Your task to perform on an android device: What's the weather? Image 0: 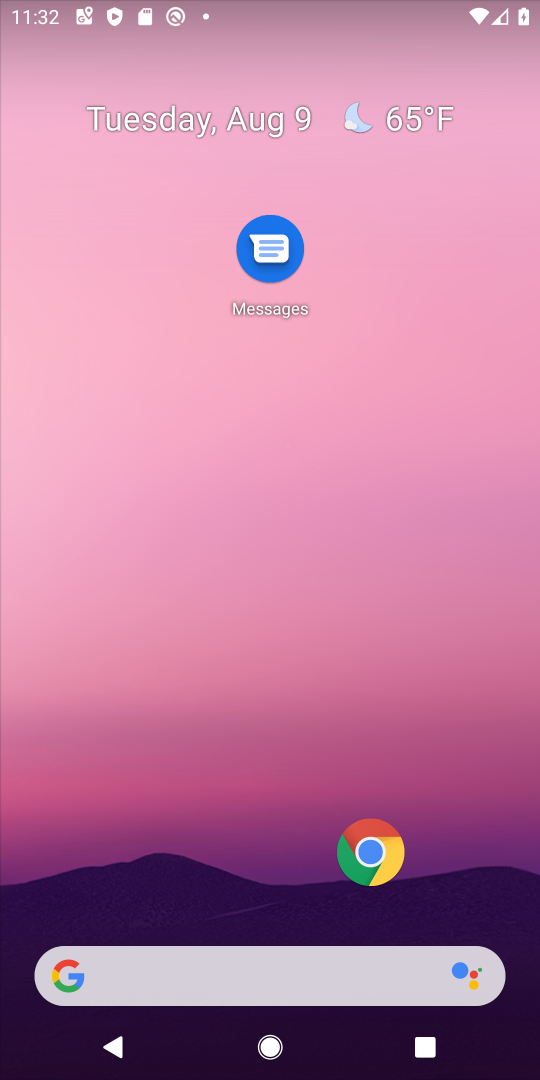
Step 0: click (164, 973)
Your task to perform on an android device: What's the weather? Image 1: 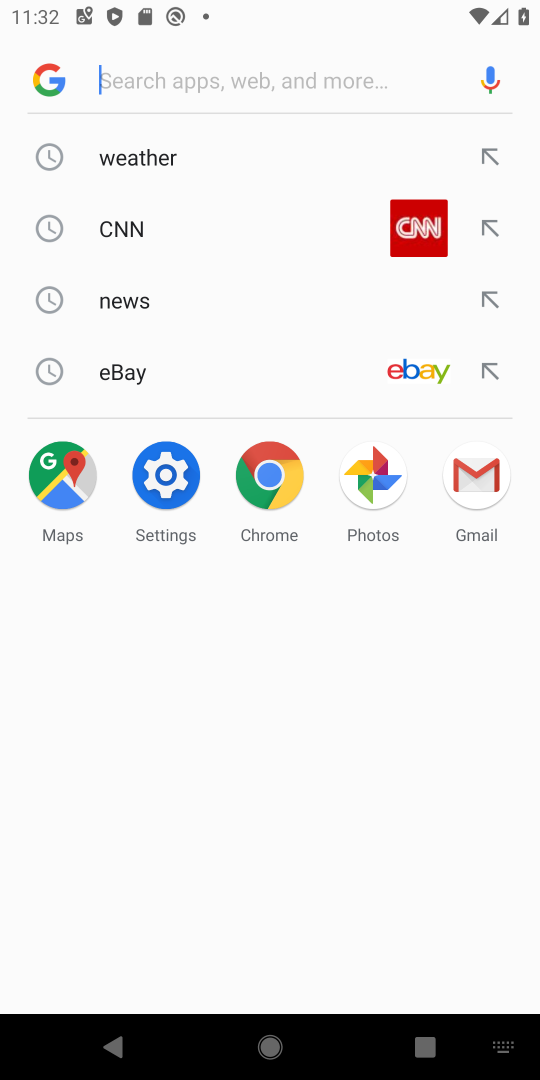
Step 1: click (202, 162)
Your task to perform on an android device: What's the weather? Image 2: 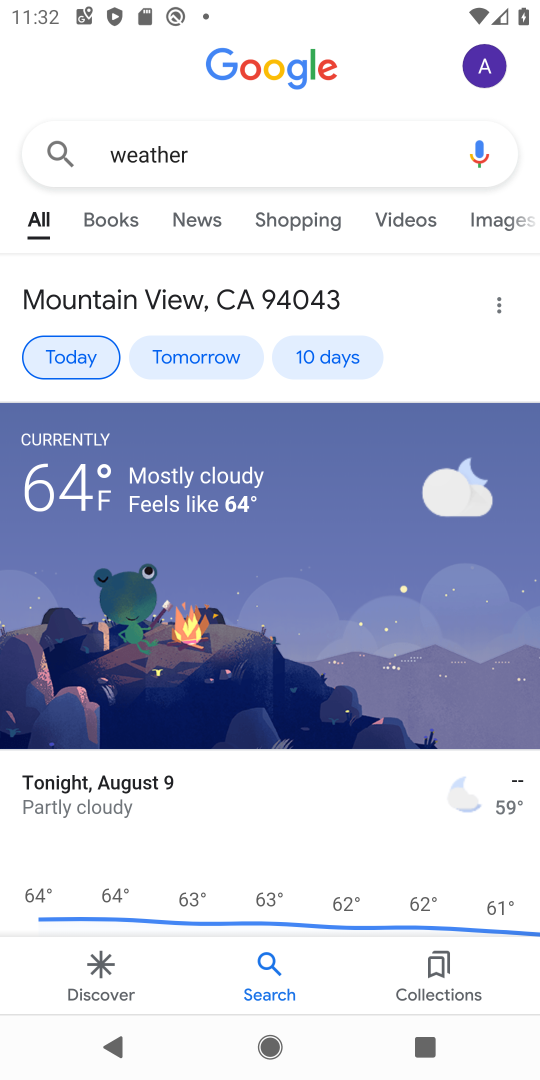
Step 2: task complete